Your task to perform on an android device: turn on bluetooth scan Image 0: 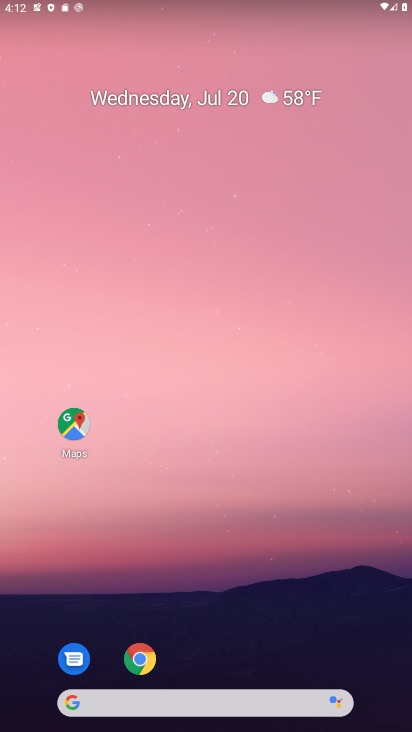
Step 0: drag from (251, 589) to (119, 158)
Your task to perform on an android device: turn on bluetooth scan Image 1: 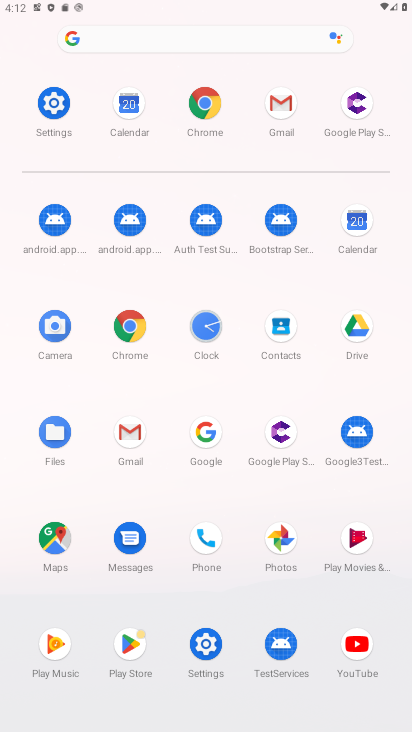
Step 1: click (44, 107)
Your task to perform on an android device: turn on bluetooth scan Image 2: 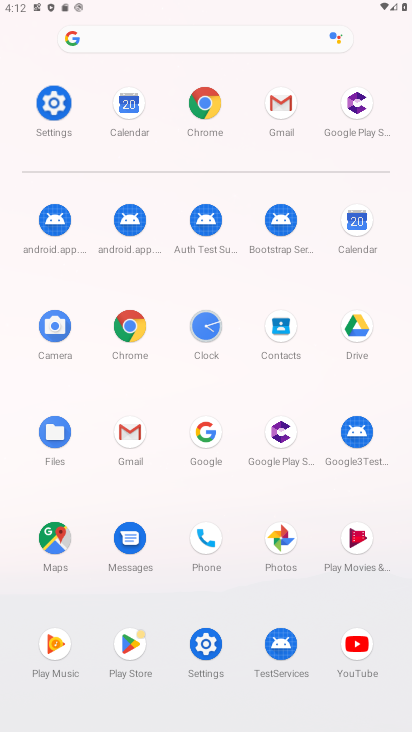
Step 2: click (44, 107)
Your task to perform on an android device: turn on bluetooth scan Image 3: 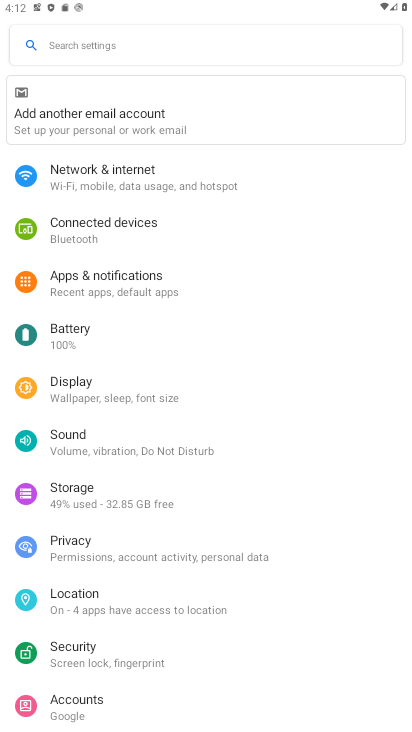
Step 3: click (94, 602)
Your task to perform on an android device: turn on bluetooth scan Image 4: 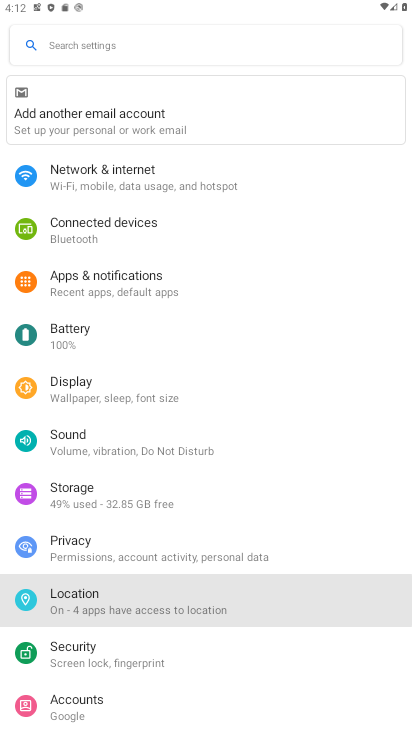
Step 4: click (94, 602)
Your task to perform on an android device: turn on bluetooth scan Image 5: 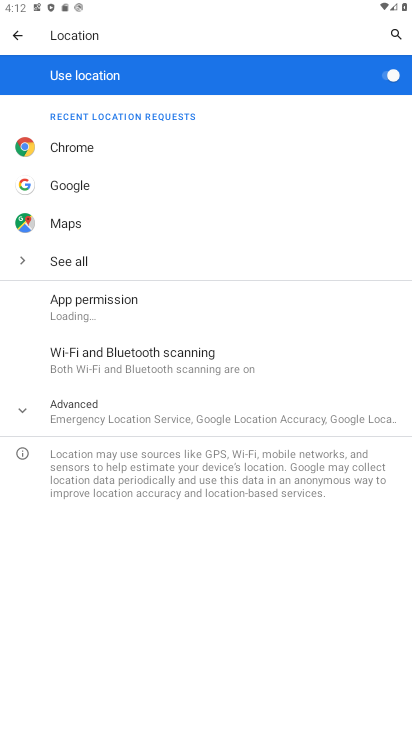
Step 5: click (121, 339)
Your task to perform on an android device: turn on bluetooth scan Image 6: 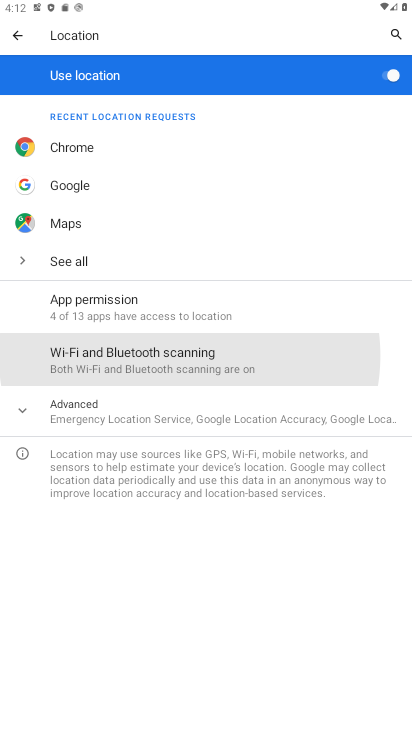
Step 6: click (125, 352)
Your task to perform on an android device: turn on bluetooth scan Image 7: 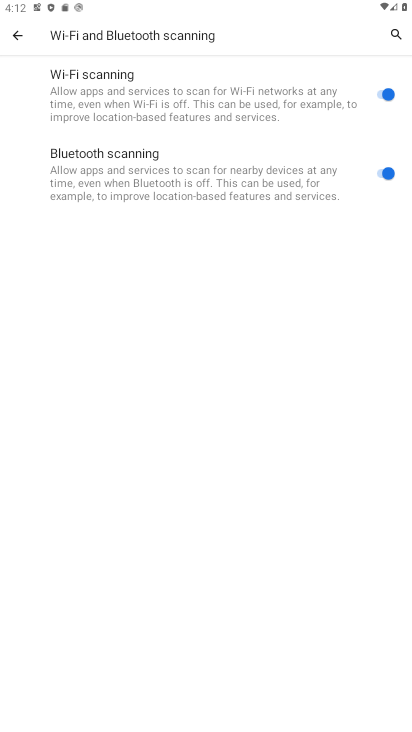
Step 7: task complete